Your task to perform on an android device: Open internet settings Image 0: 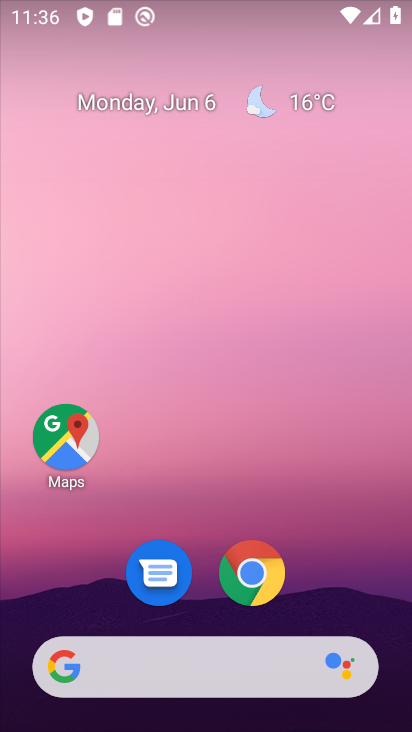
Step 0: drag from (375, 590) to (322, 2)
Your task to perform on an android device: Open internet settings Image 1: 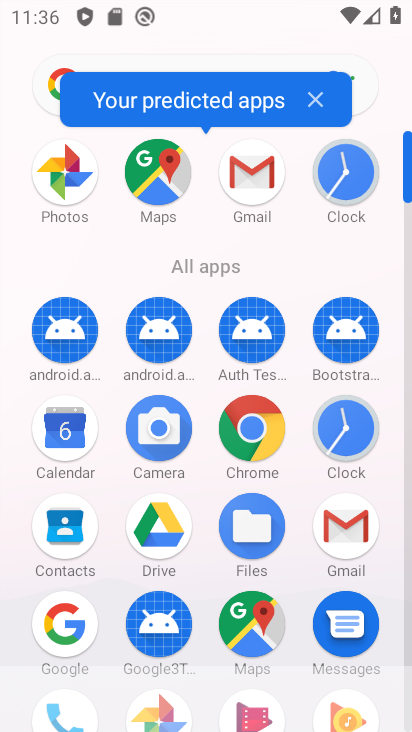
Step 1: drag from (294, 640) to (251, 300)
Your task to perform on an android device: Open internet settings Image 2: 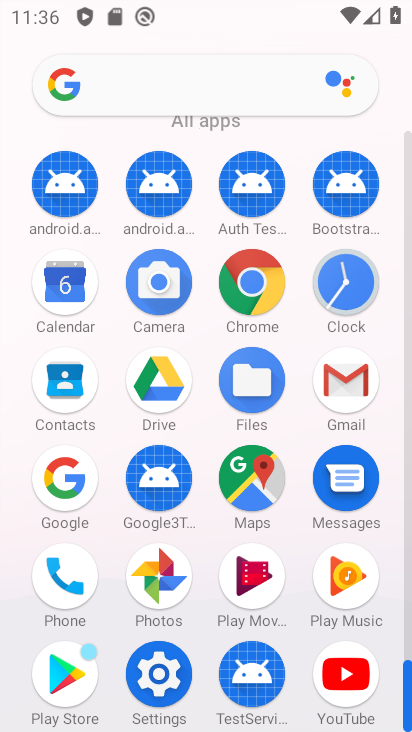
Step 2: click (147, 678)
Your task to perform on an android device: Open internet settings Image 3: 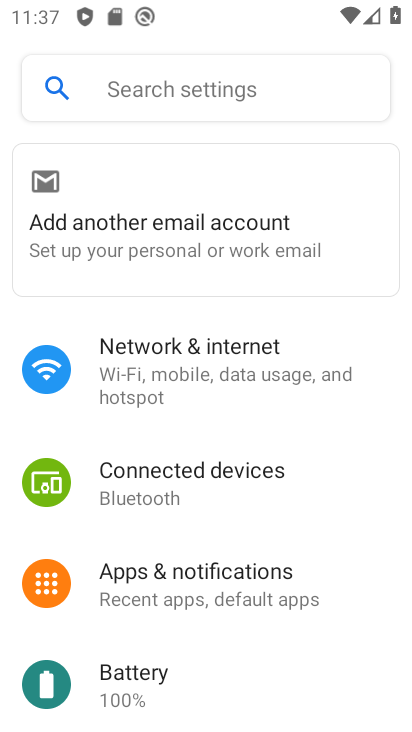
Step 3: click (179, 405)
Your task to perform on an android device: Open internet settings Image 4: 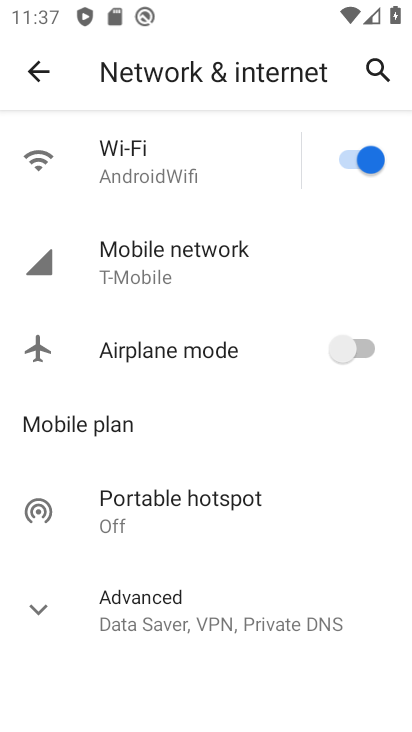
Step 4: task complete